Your task to perform on an android device: Show me productivity apps on the Play Store Image 0: 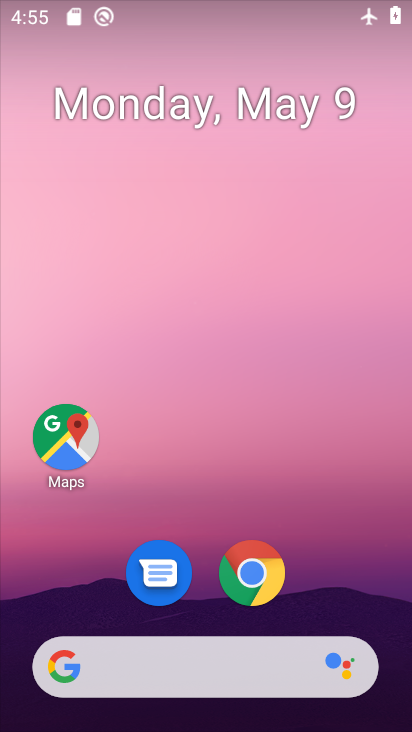
Step 0: drag from (393, 643) to (300, 184)
Your task to perform on an android device: Show me productivity apps on the Play Store Image 1: 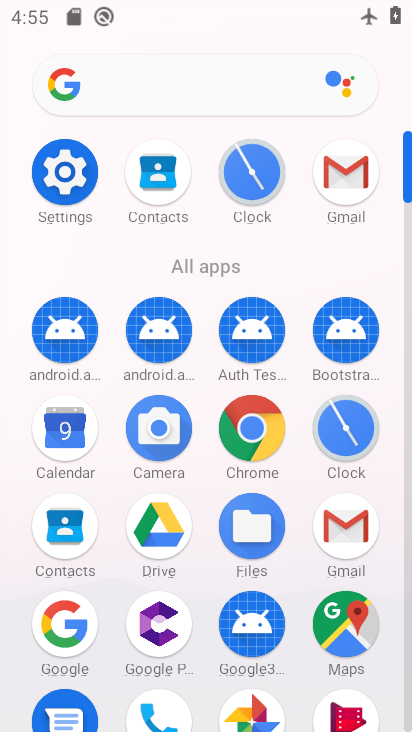
Step 1: click (409, 690)
Your task to perform on an android device: Show me productivity apps on the Play Store Image 2: 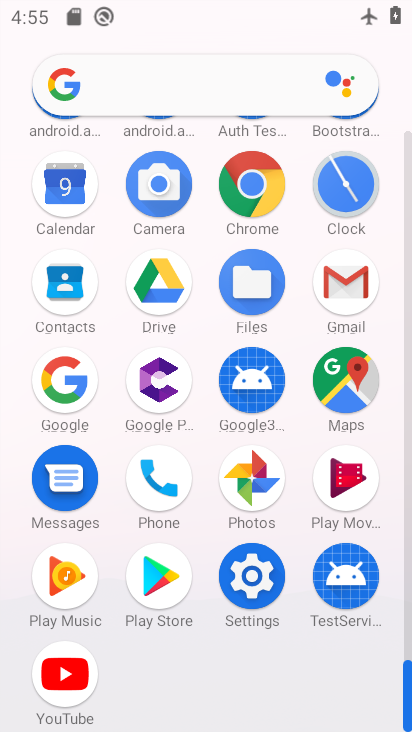
Step 2: click (159, 575)
Your task to perform on an android device: Show me productivity apps on the Play Store Image 3: 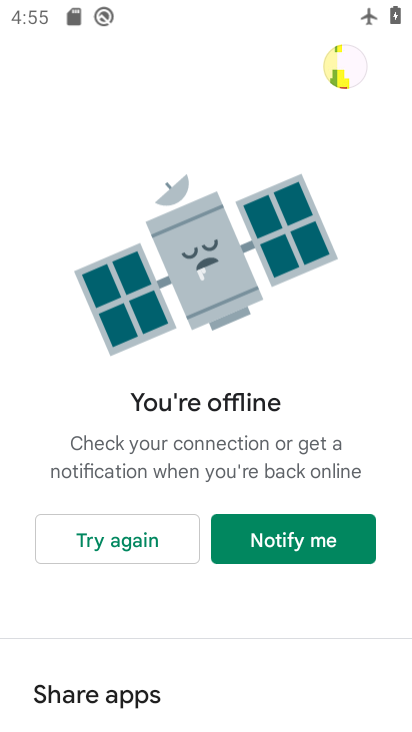
Step 3: task complete